Your task to perform on an android device: Turn on the flashlight Image 0: 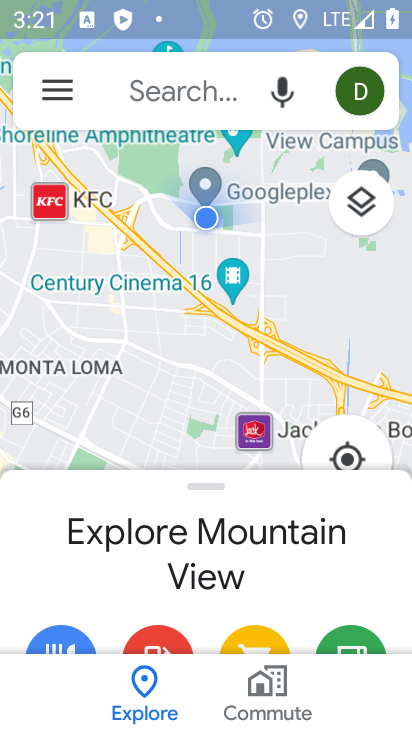
Step 0: press home button
Your task to perform on an android device: Turn on the flashlight Image 1: 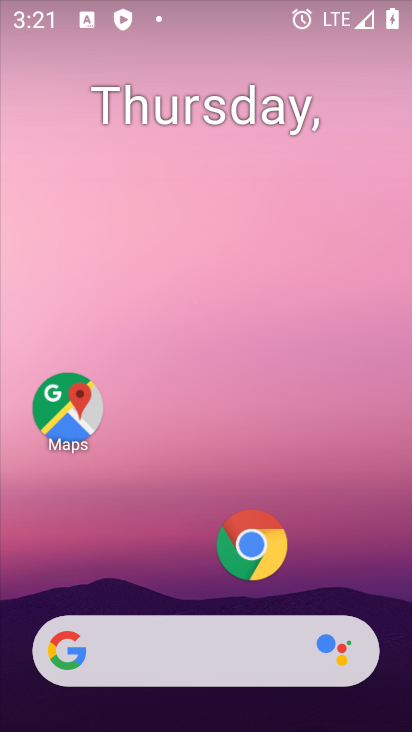
Step 1: task complete